Your task to perform on an android device: open chrome and create a bookmark for the current page Image 0: 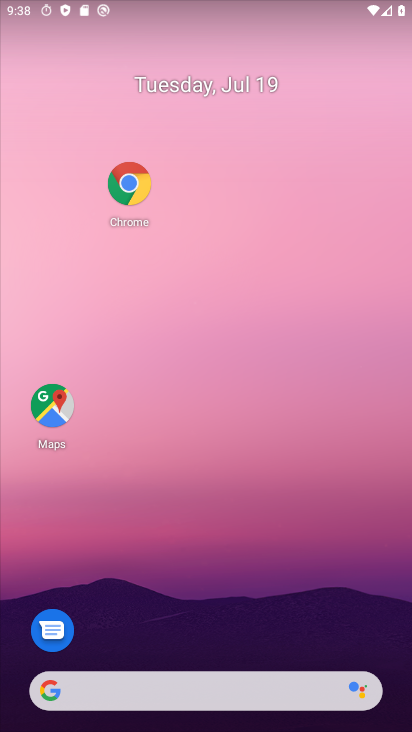
Step 0: drag from (243, 658) to (178, 2)
Your task to perform on an android device: open chrome and create a bookmark for the current page Image 1: 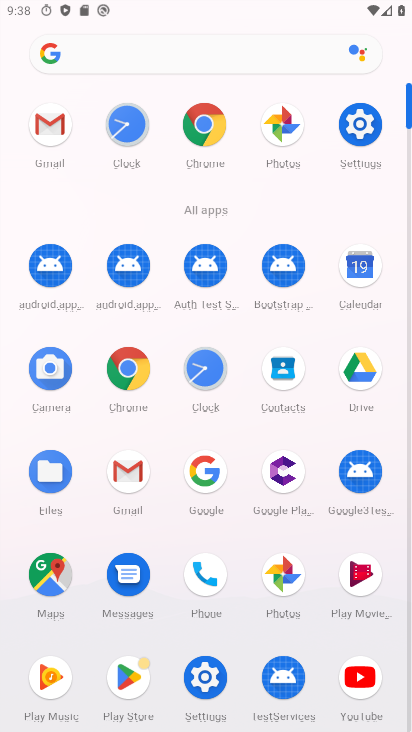
Step 1: click (204, 112)
Your task to perform on an android device: open chrome and create a bookmark for the current page Image 2: 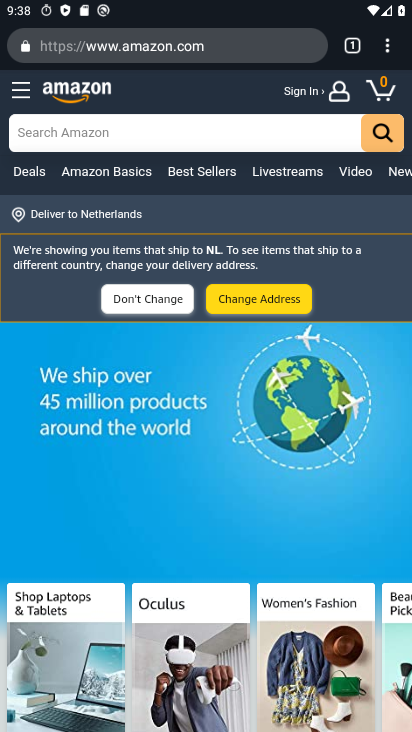
Step 2: click (388, 54)
Your task to perform on an android device: open chrome and create a bookmark for the current page Image 3: 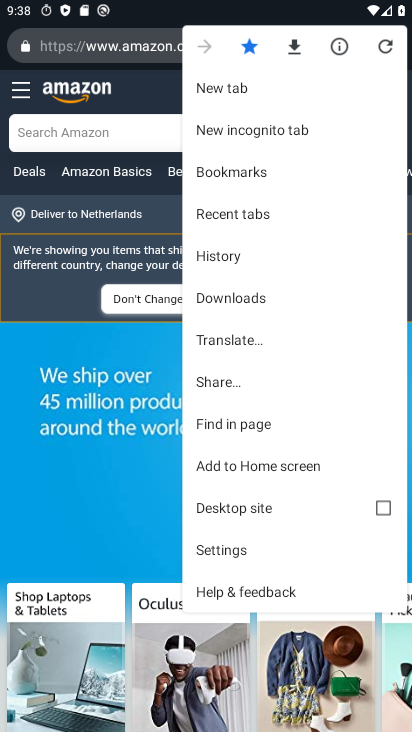
Step 3: task complete